Your task to perform on an android device: Search for "asus zenbook" on newegg, select the first entry, and add it to the cart. Image 0: 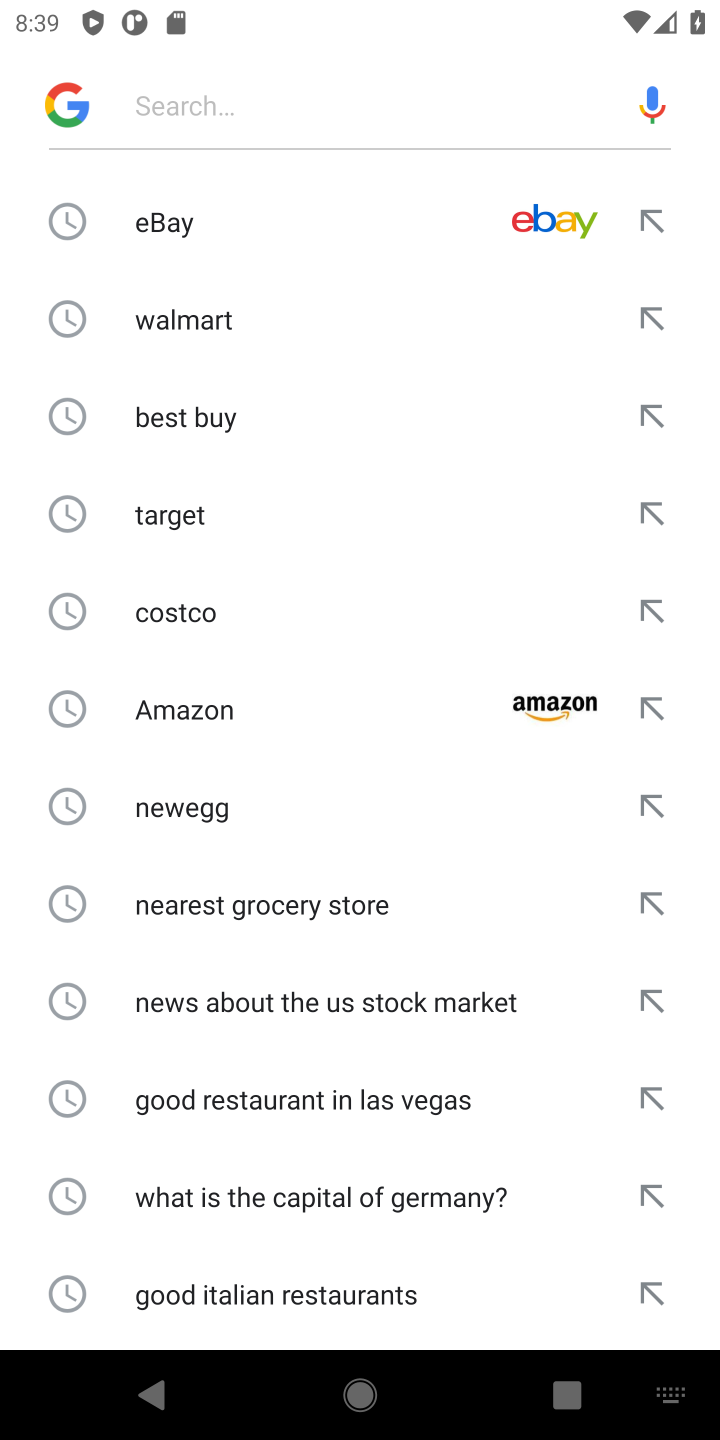
Step 0: press home button
Your task to perform on an android device: Search for "asus zenbook" on newegg, select the first entry, and add it to the cart. Image 1: 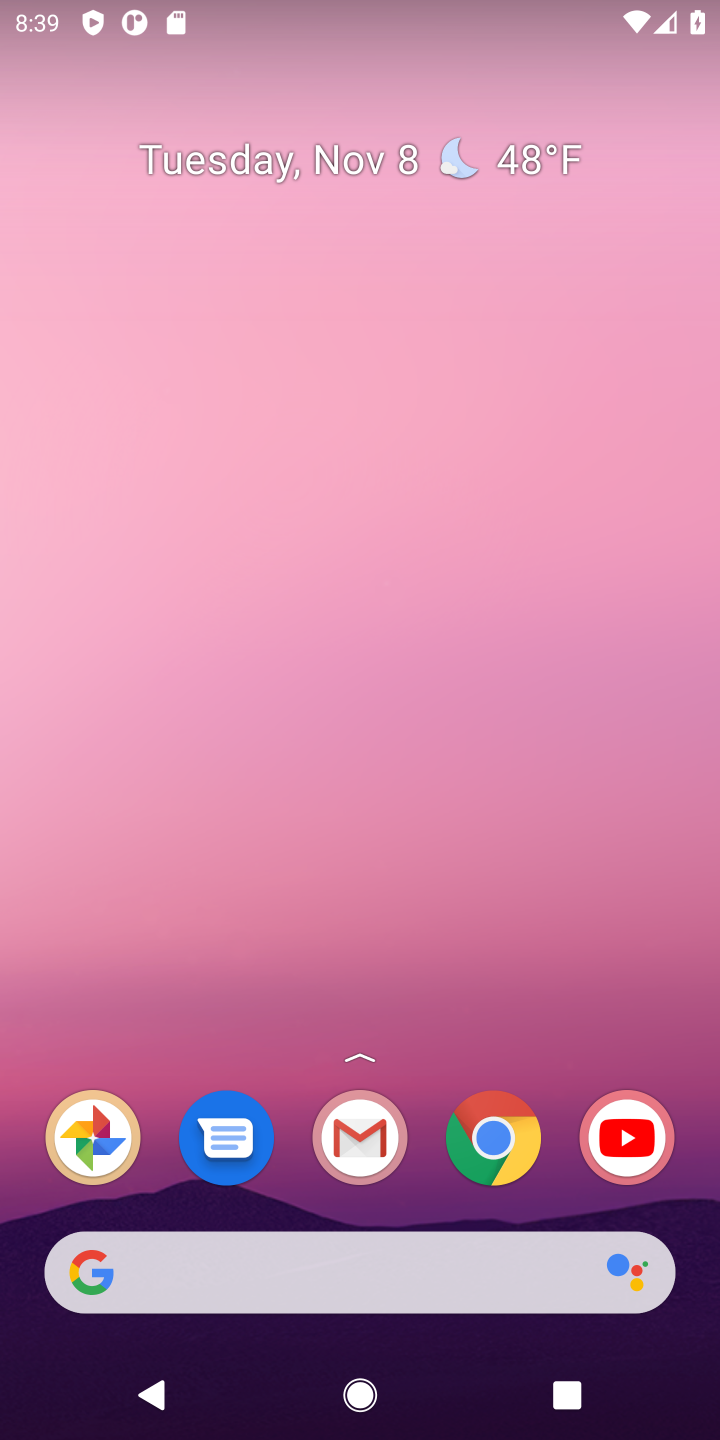
Step 1: click (512, 1159)
Your task to perform on an android device: Search for "asus zenbook" on newegg, select the first entry, and add it to the cart. Image 2: 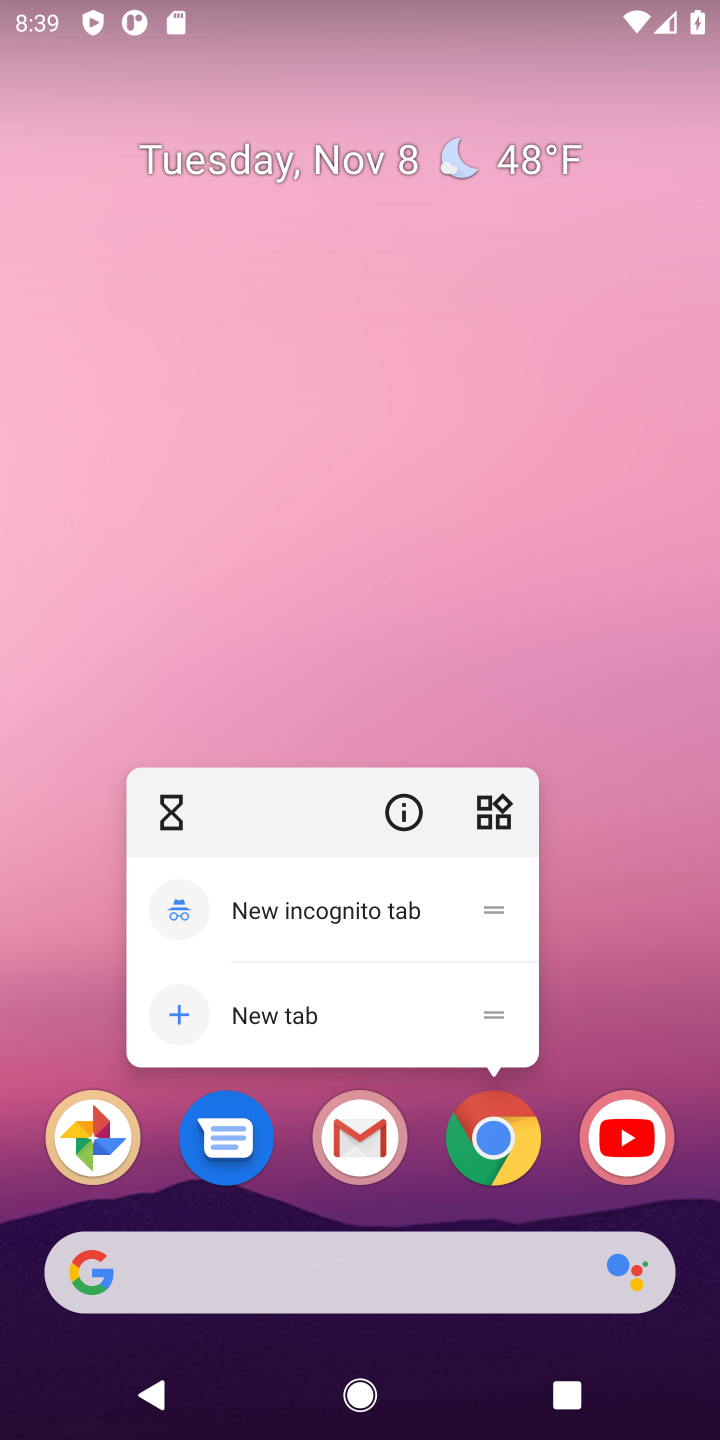
Step 2: click (503, 1140)
Your task to perform on an android device: Search for "asus zenbook" on newegg, select the first entry, and add it to the cart. Image 3: 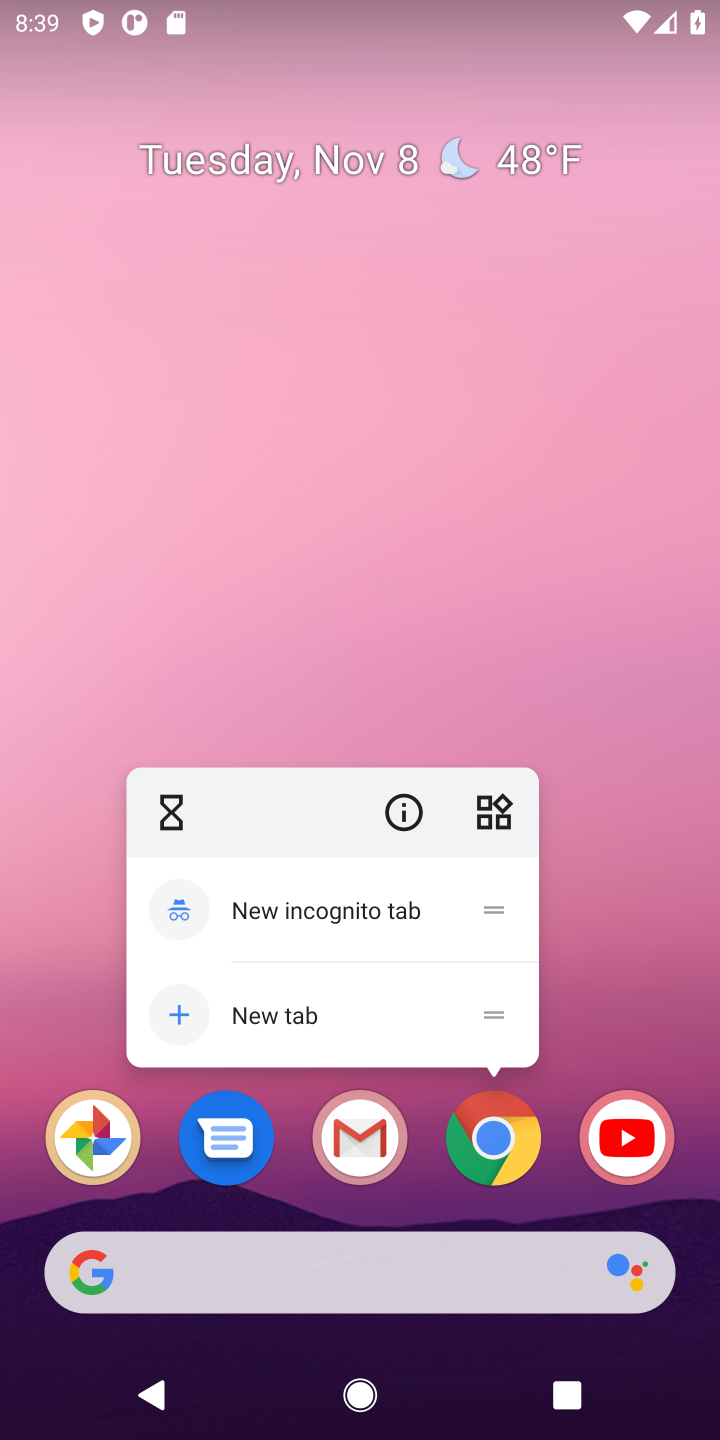
Step 3: click (503, 1140)
Your task to perform on an android device: Search for "asus zenbook" on newegg, select the first entry, and add it to the cart. Image 4: 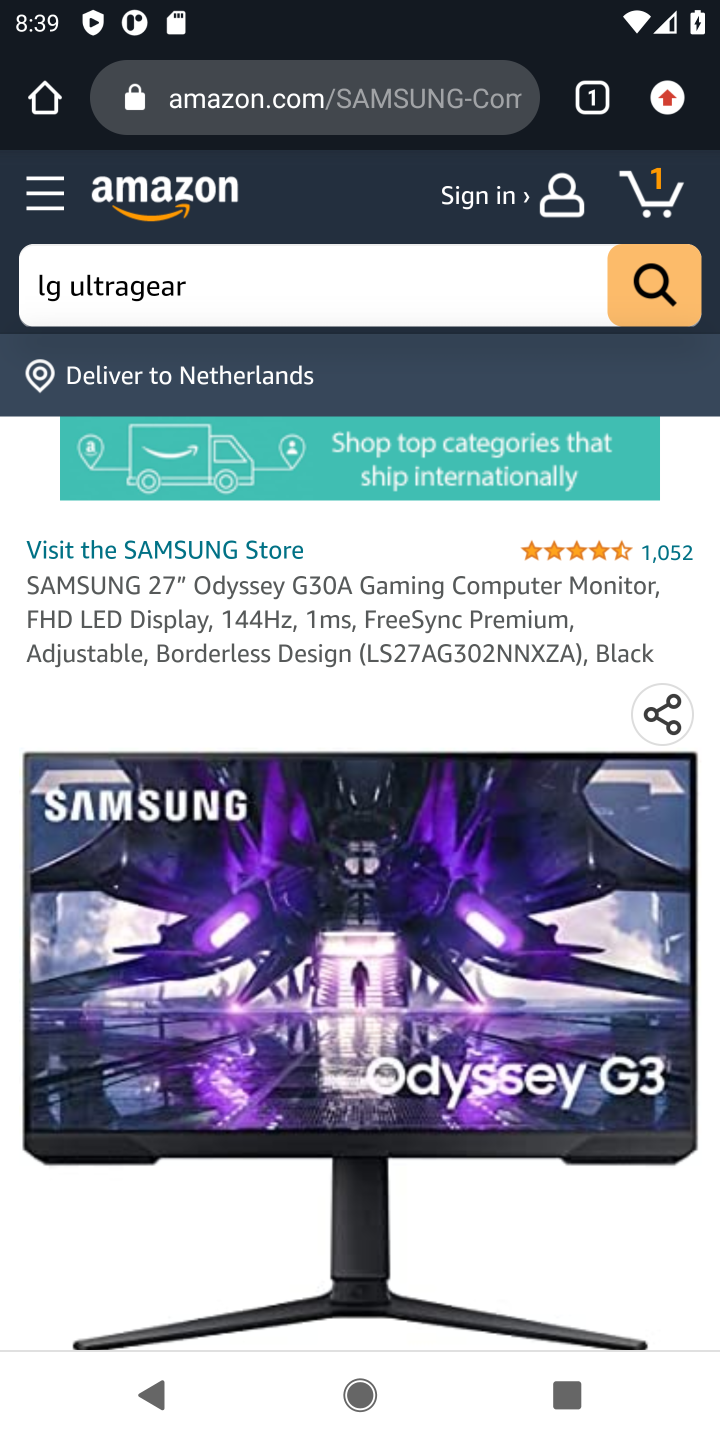
Step 4: click (369, 94)
Your task to perform on an android device: Search for "asus zenbook" on newegg, select the first entry, and add it to the cart. Image 5: 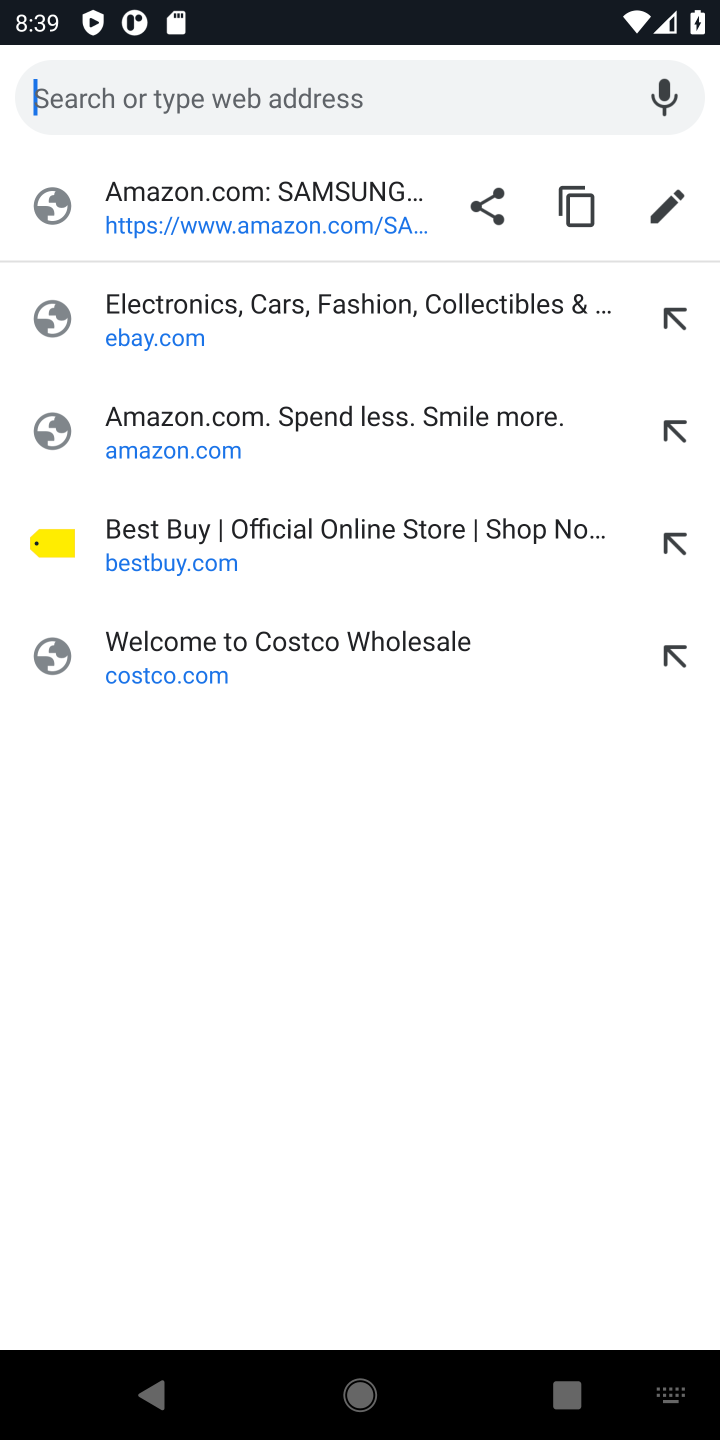
Step 5: type " newegg"
Your task to perform on an android device: Search for "asus zenbook" on newegg, select the first entry, and add it to the cart. Image 6: 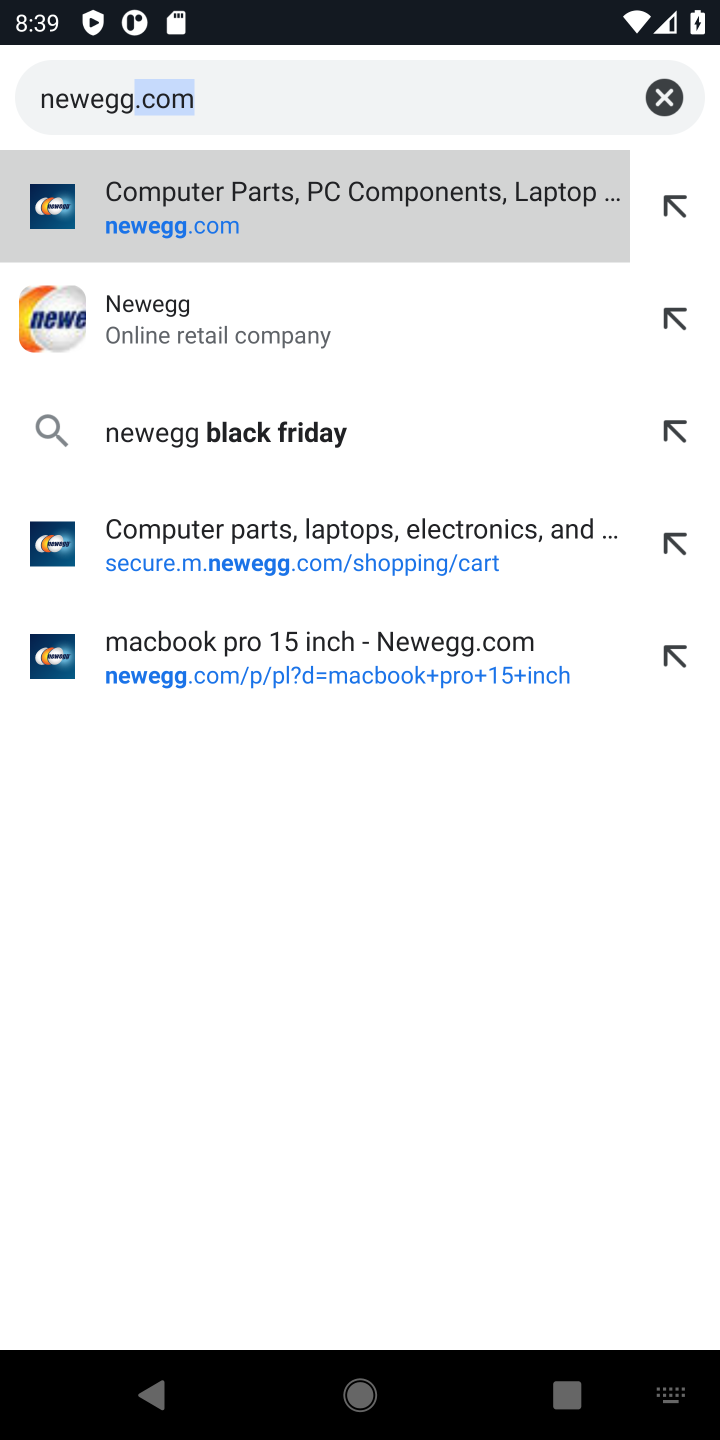
Step 6: press enter
Your task to perform on an android device: Search for "asus zenbook" on newegg, select the first entry, and add it to the cart. Image 7: 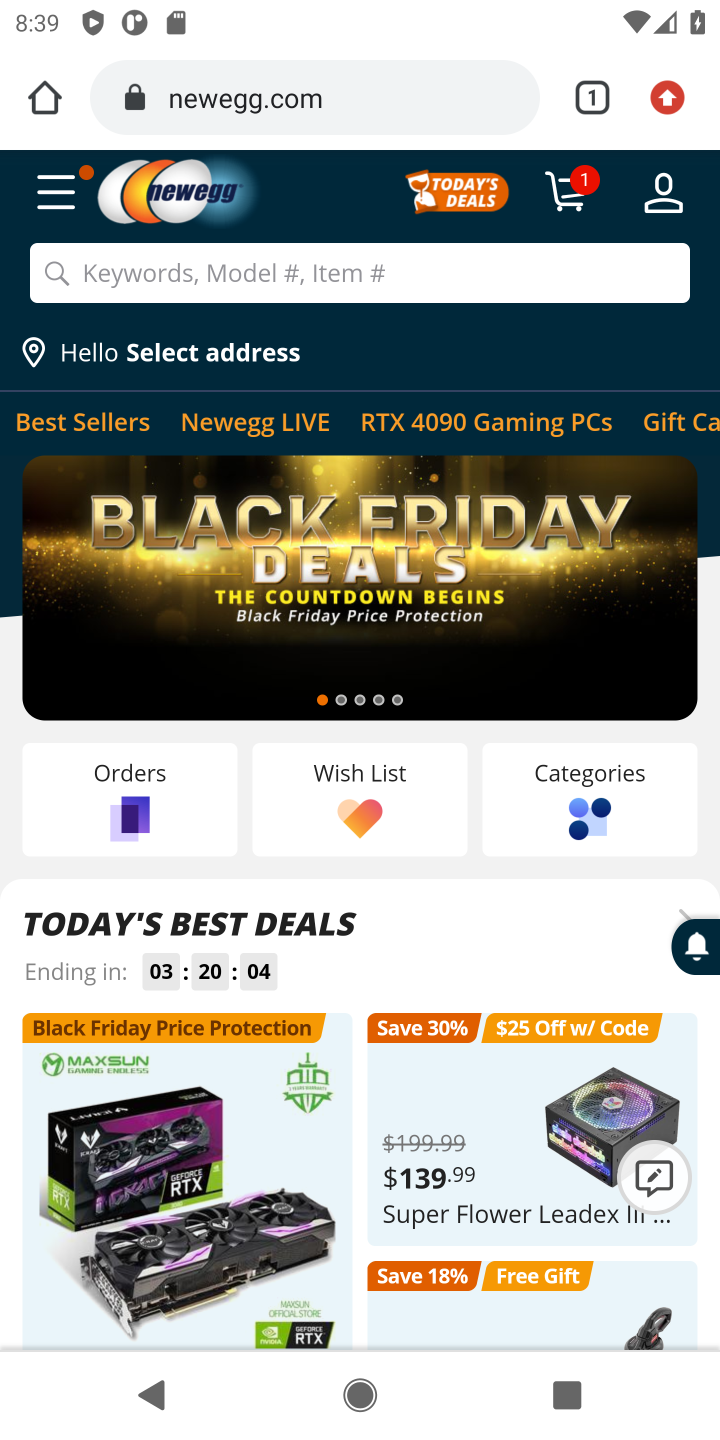
Step 7: click (274, 265)
Your task to perform on an android device: Search for "asus zenbook" on newegg, select the first entry, and add it to the cart. Image 8: 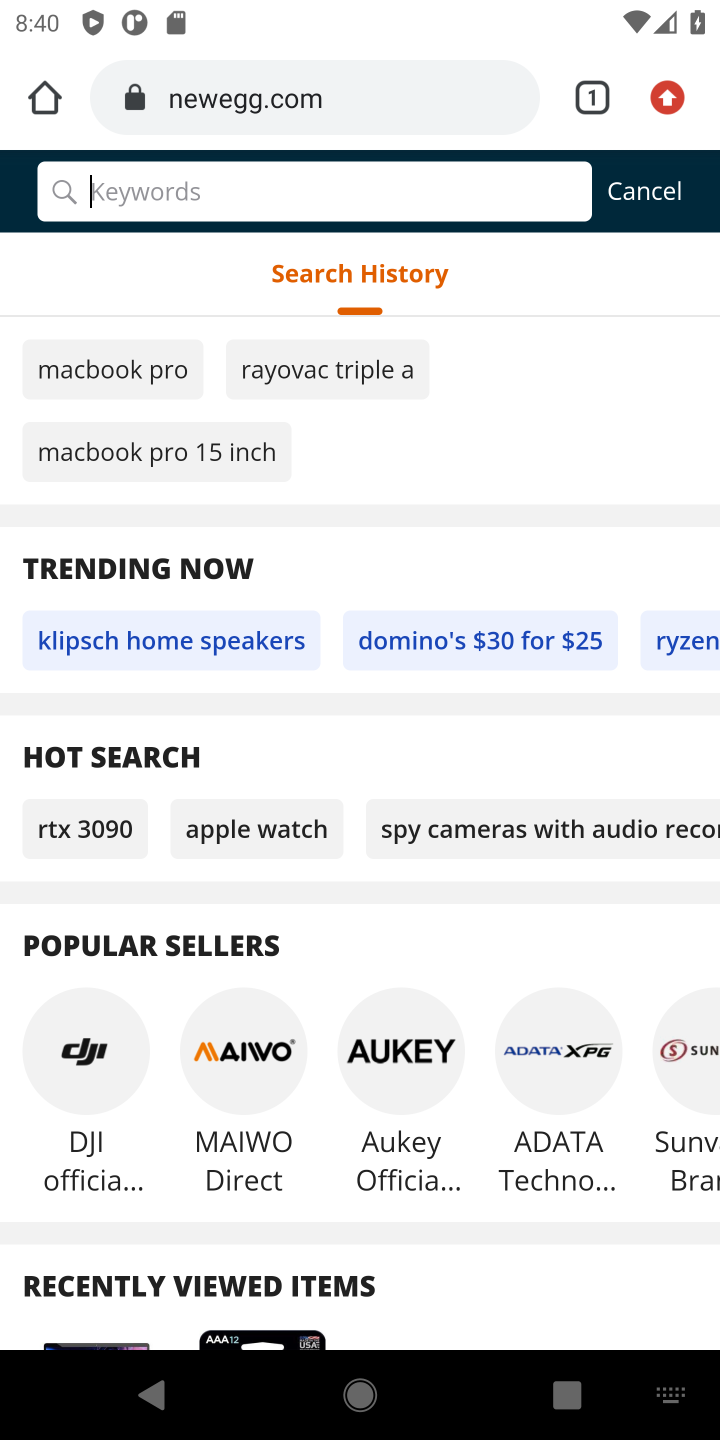
Step 8: type "asus zenbook"
Your task to perform on an android device: Search for "asus zenbook" on newegg, select the first entry, and add it to the cart. Image 9: 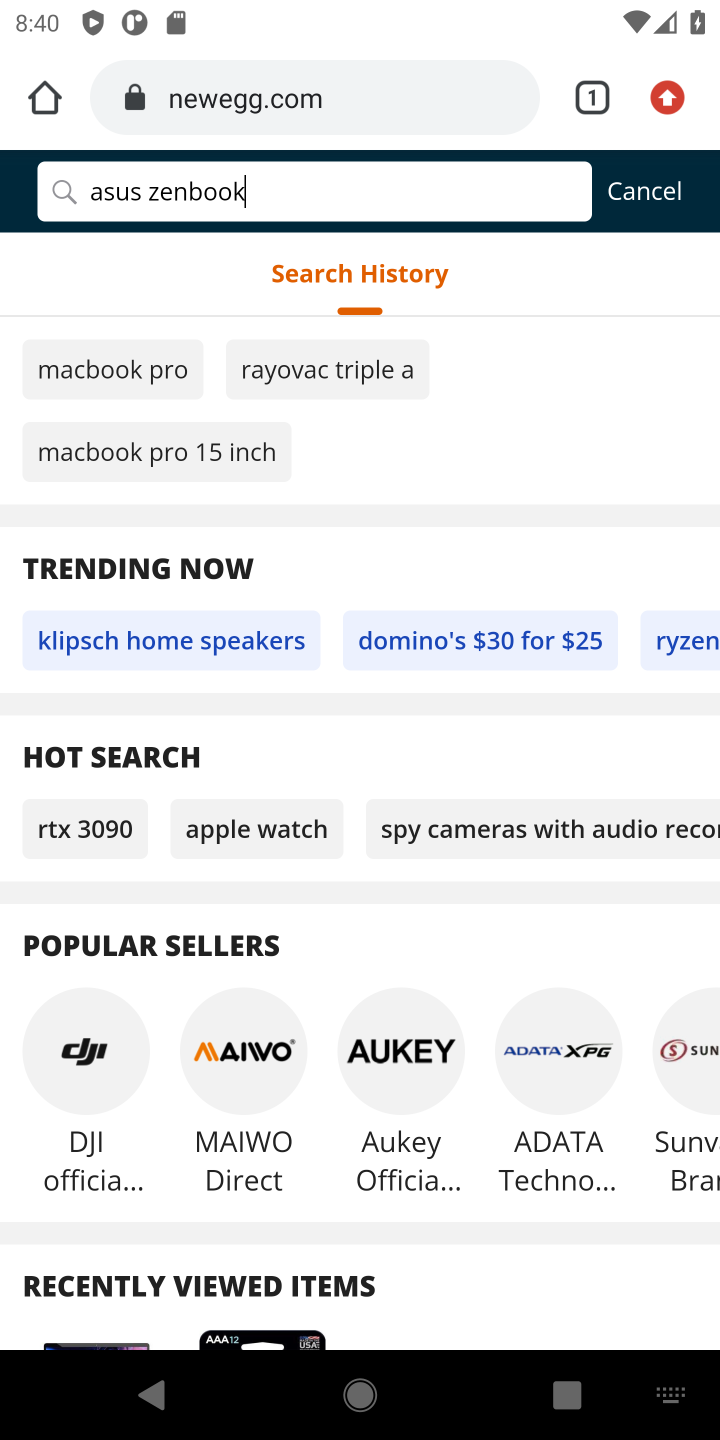
Step 9: press enter
Your task to perform on an android device: Search for "asus zenbook" on newegg, select the first entry, and add it to the cart. Image 10: 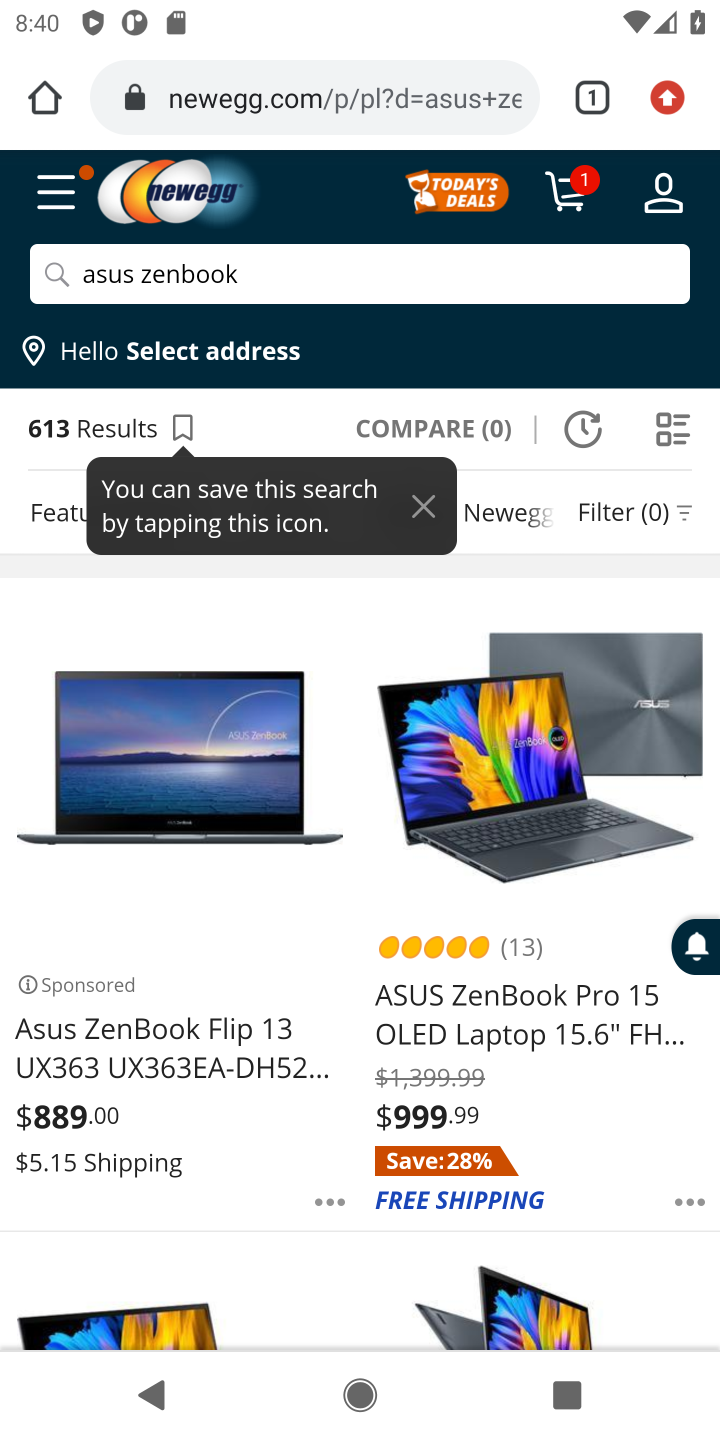
Step 10: click (164, 1065)
Your task to perform on an android device: Search for "asus zenbook" on newegg, select the first entry, and add it to the cart. Image 11: 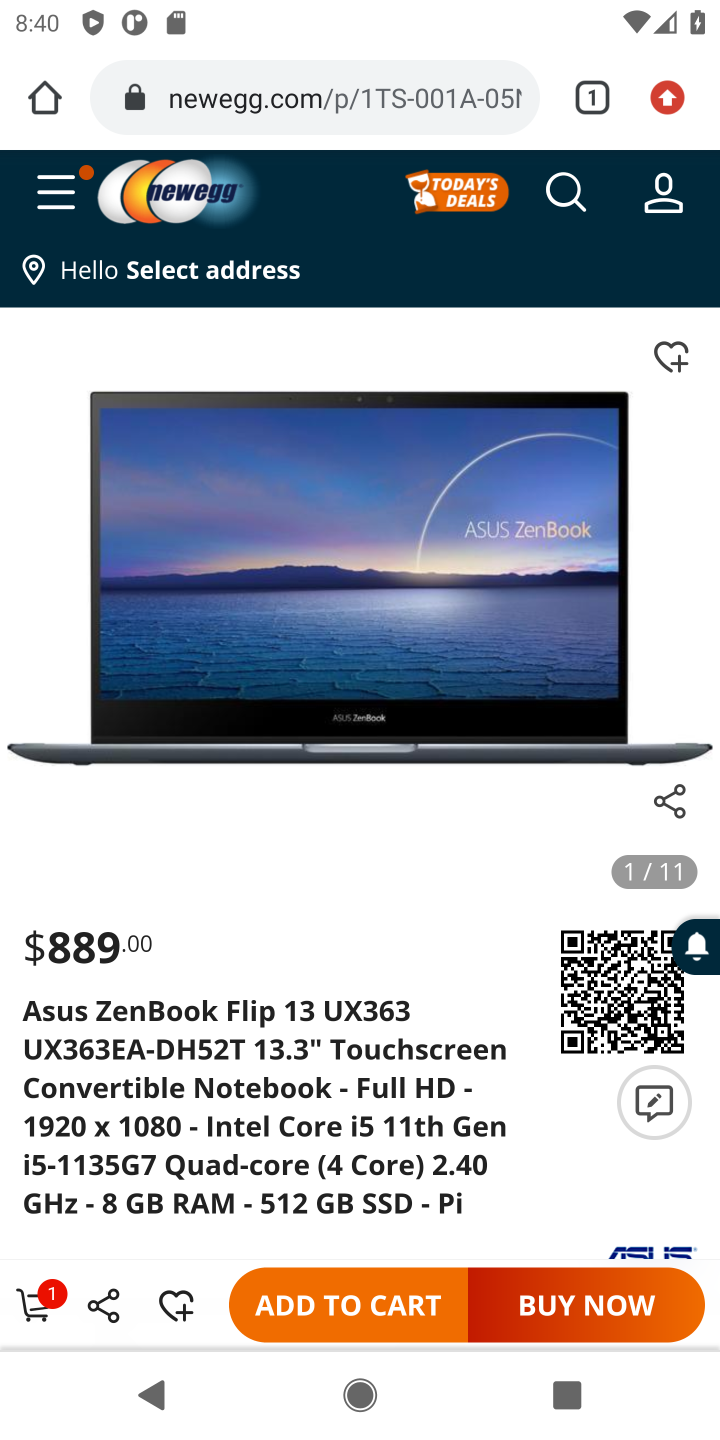
Step 11: click (369, 1306)
Your task to perform on an android device: Search for "asus zenbook" on newegg, select the first entry, and add it to the cart. Image 12: 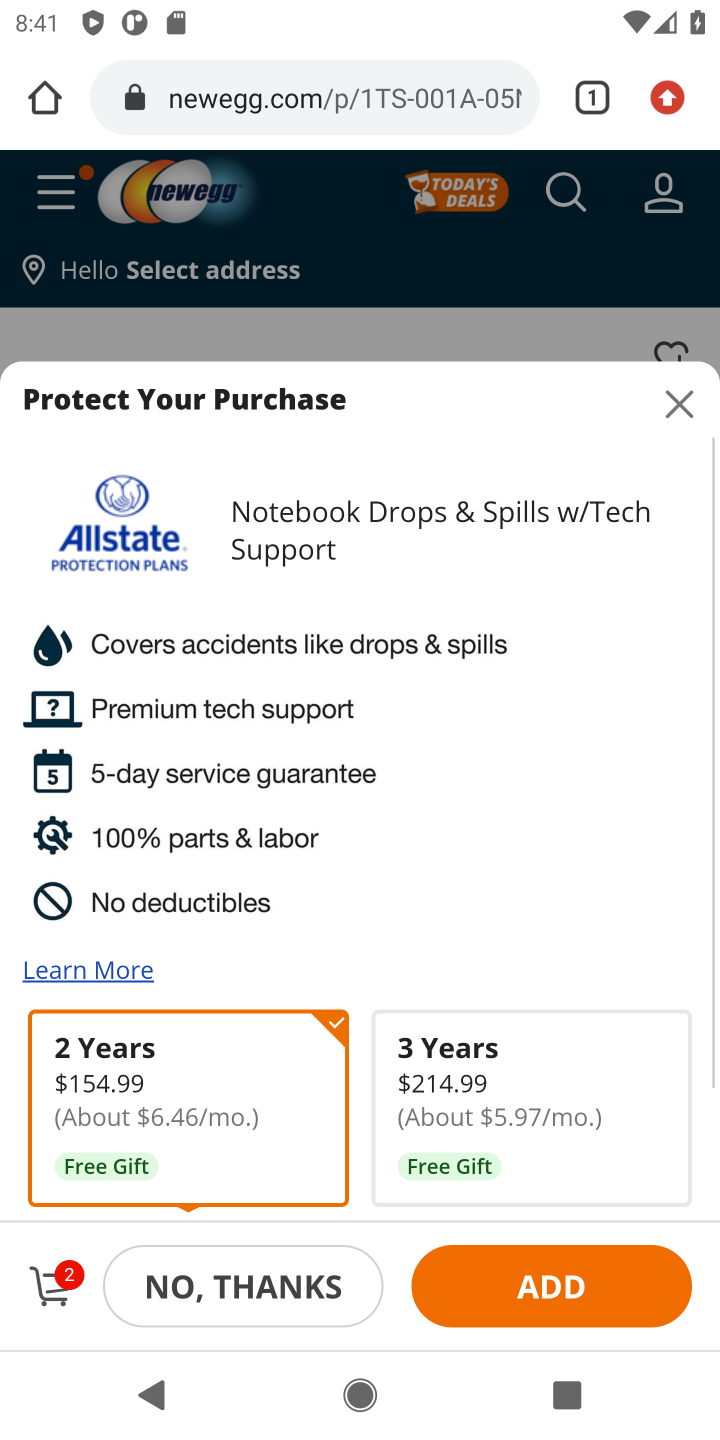
Step 12: click (46, 1275)
Your task to perform on an android device: Search for "asus zenbook" on newegg, select the first entry, and add it to the cart. Image 13: 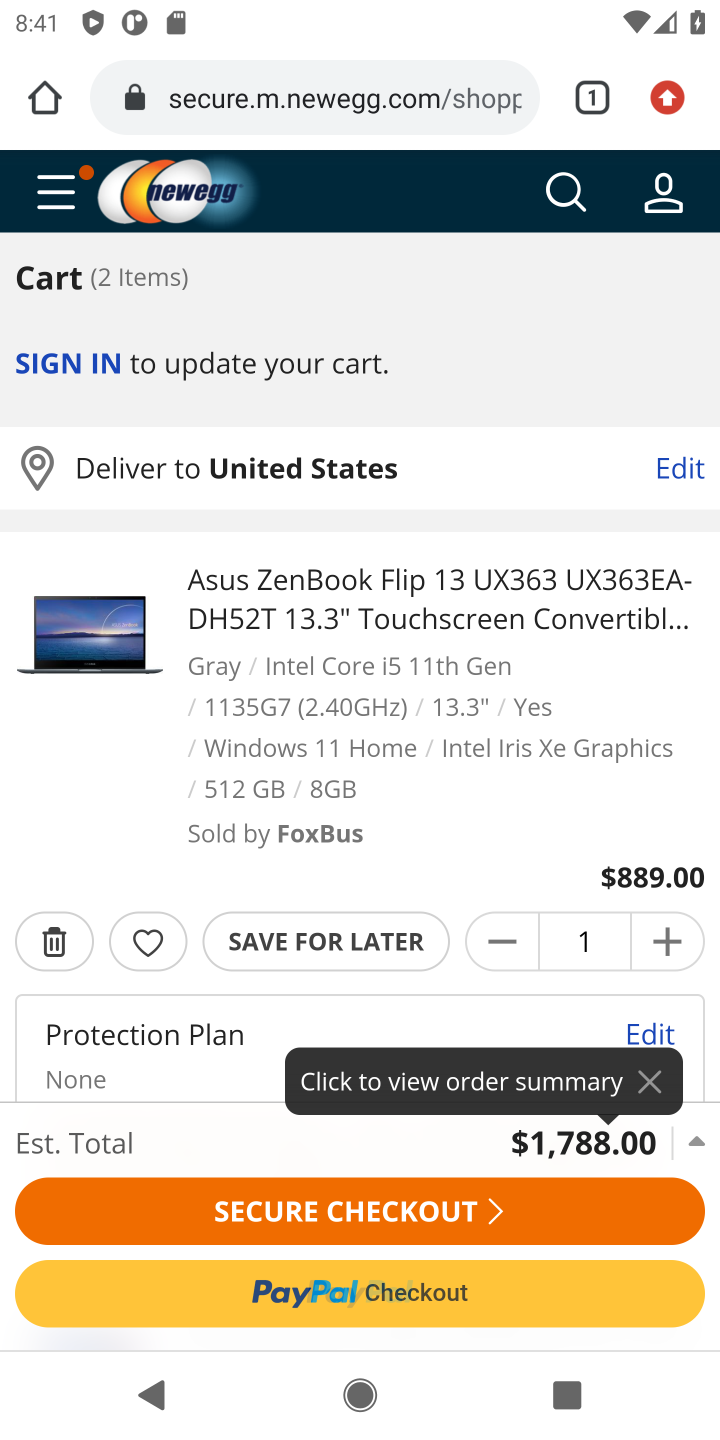
Step 13: drag from (278, 1100) to (424, 702)
Your task to perform on an android device: Search for "asus zenbook" on newegg, select the first entry, and add it to the cart. Image 14: 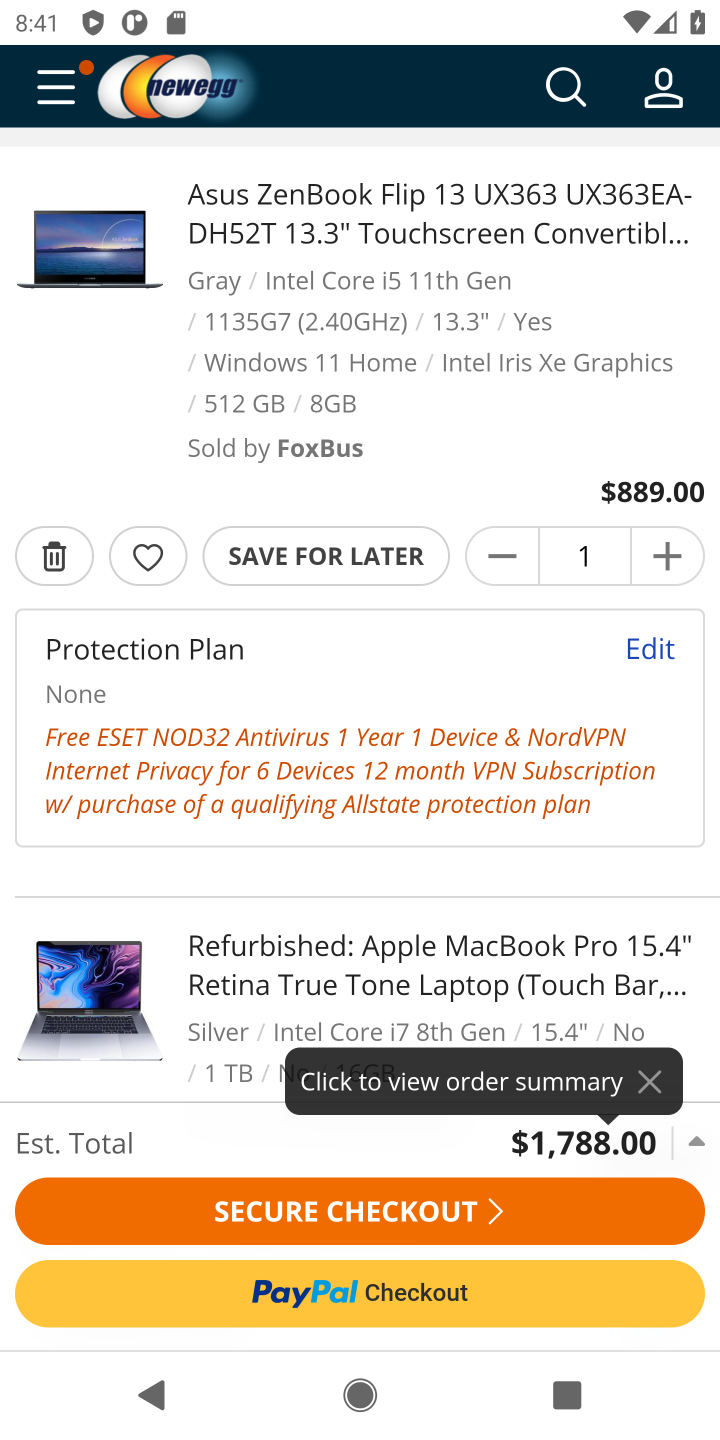
Step 14: drag from (413, 988) to (645, 361)
Your task to perform on an android device: Search for "asus zenbook" on newegg, select the first entry, and add it to the cart. Image 15: 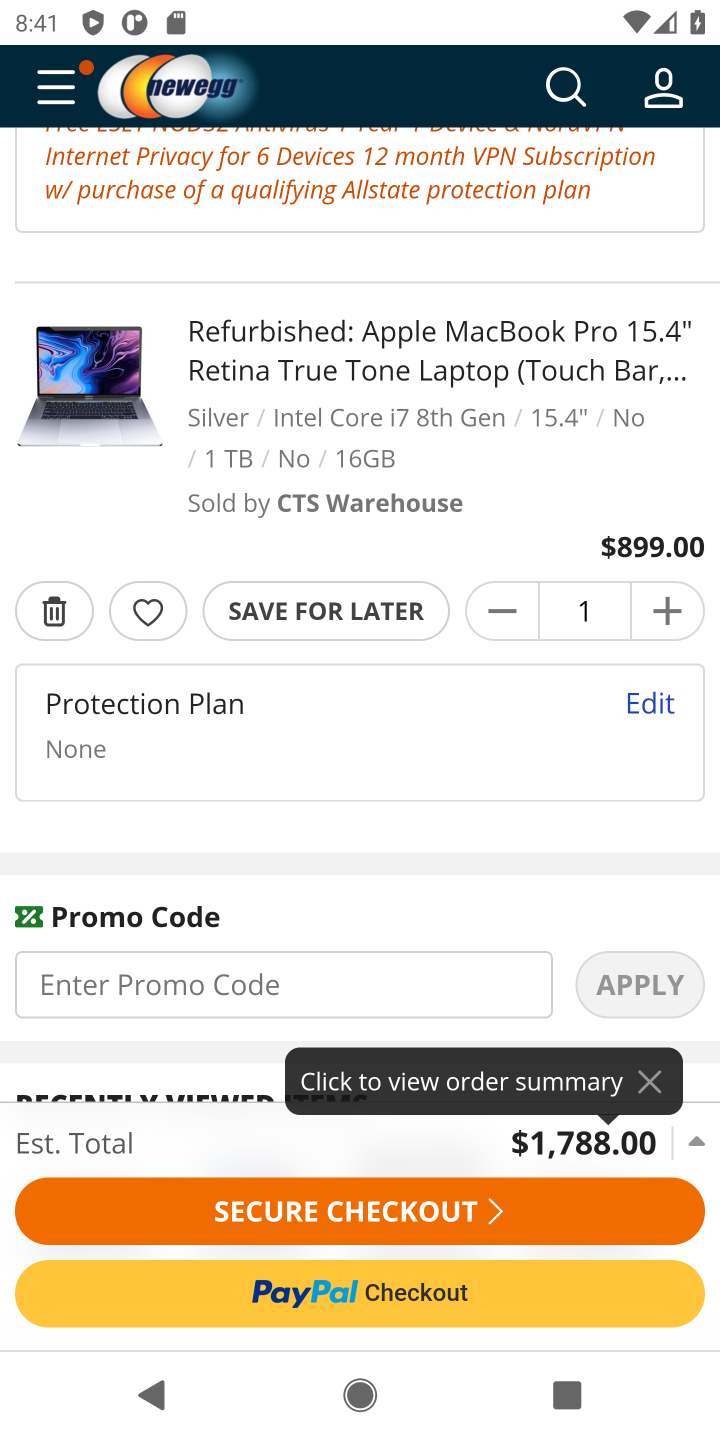
Step 15: click (55, 599)
Your task to perform on an android device: Search for "asus zenbook" on newegg, select the first entry, and add it to the cart. Image 16: 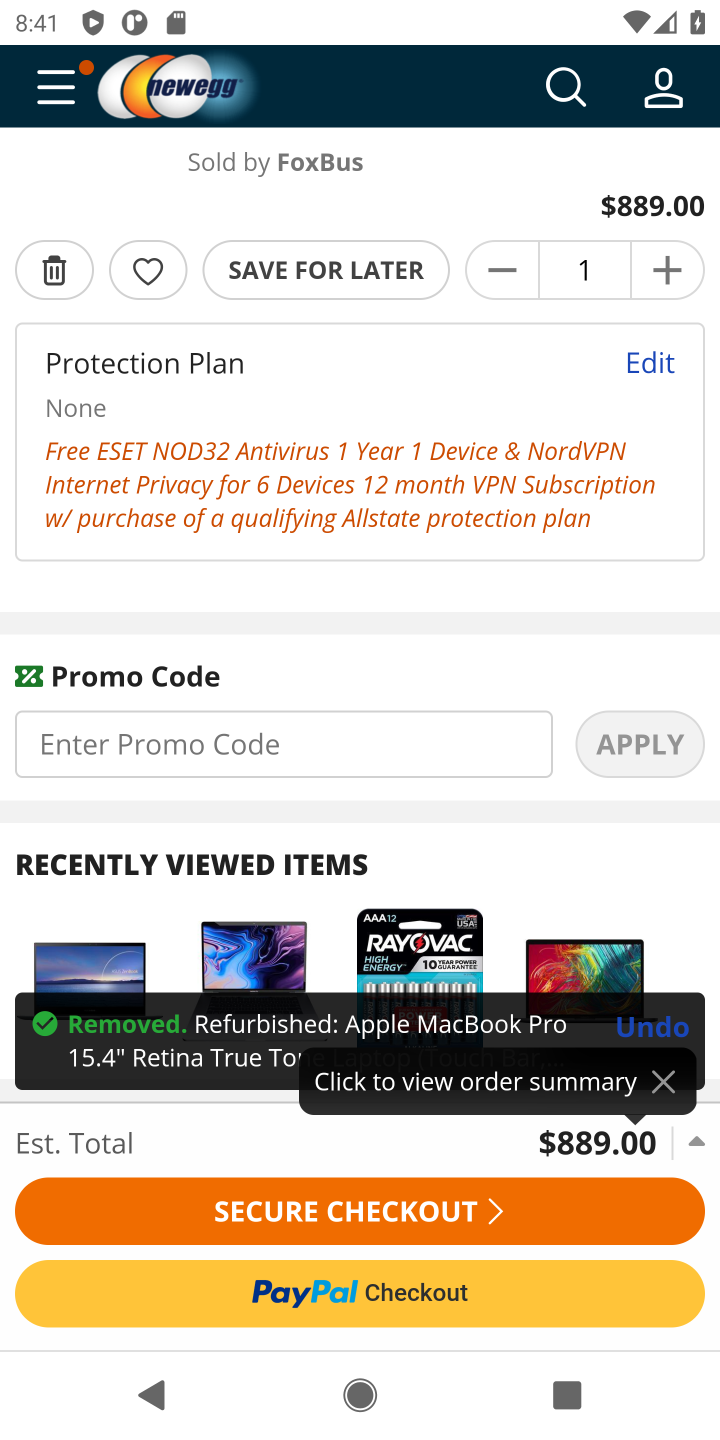
Step 16: drag from (533, 372) to (446, 1097)
Your task to perform on an android device: Search for "asus zenbook" on newegg, select the first entry, and add it to the cart. Image 17: 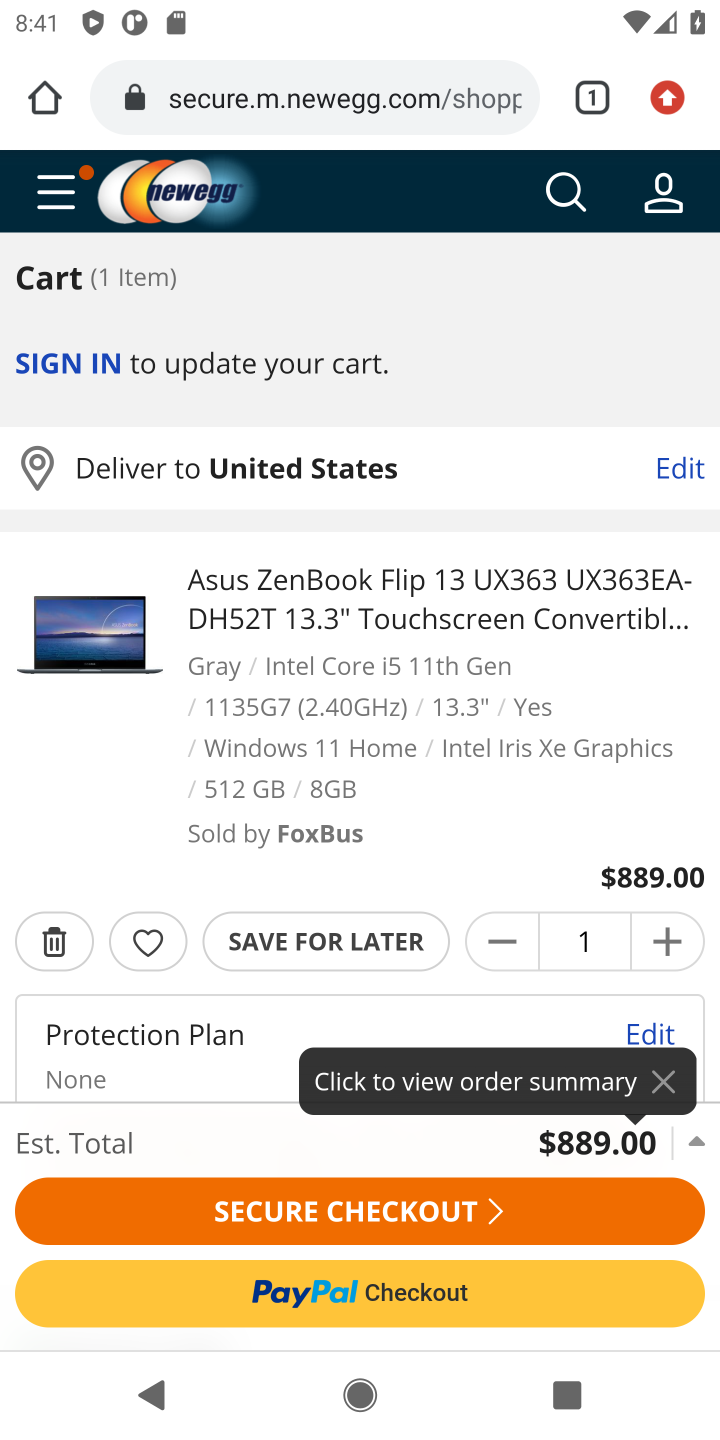
Step 17: click (386, 1209)
Your task to perform on an android device: Search for "asus zenbook" on newegg, select the first entry, and add it to the cart. Image 18: 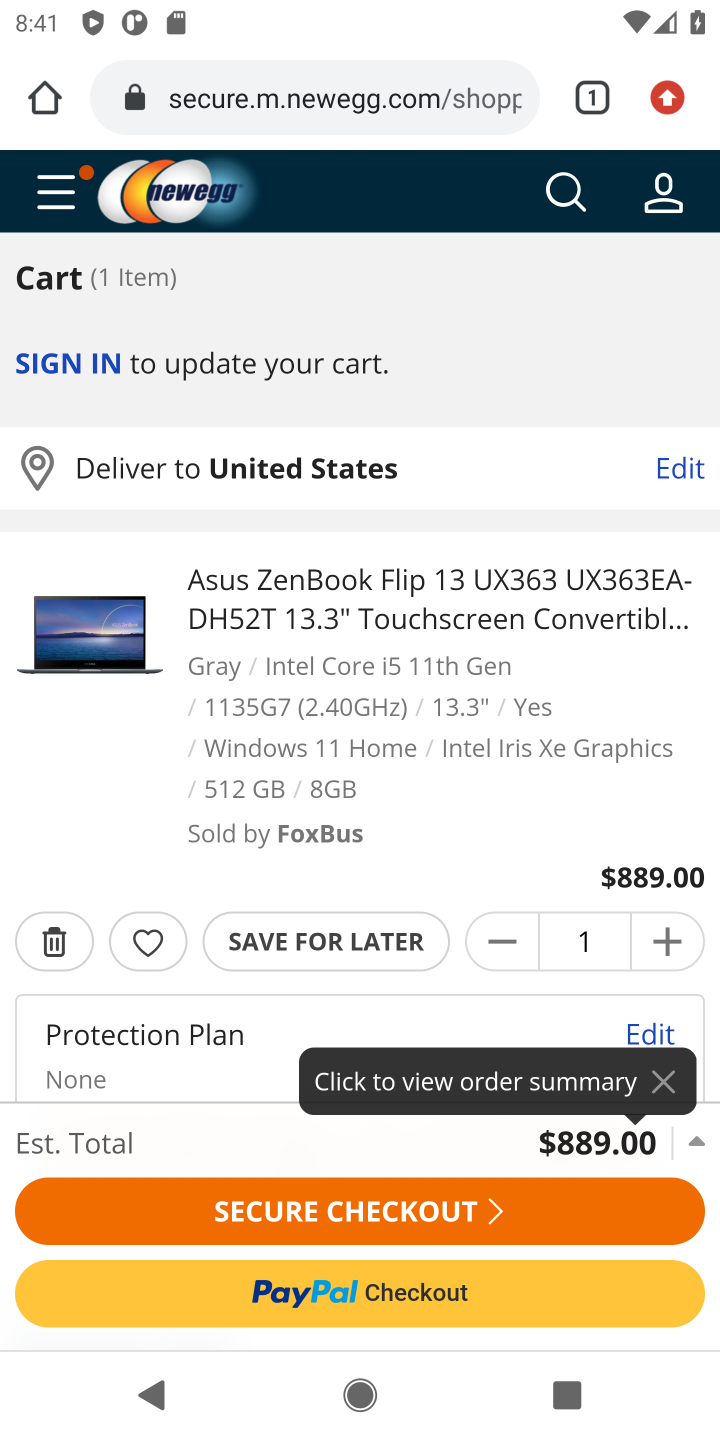
Step 18: task complete